Your task to perform on an android device: What is the news today? Image 0: 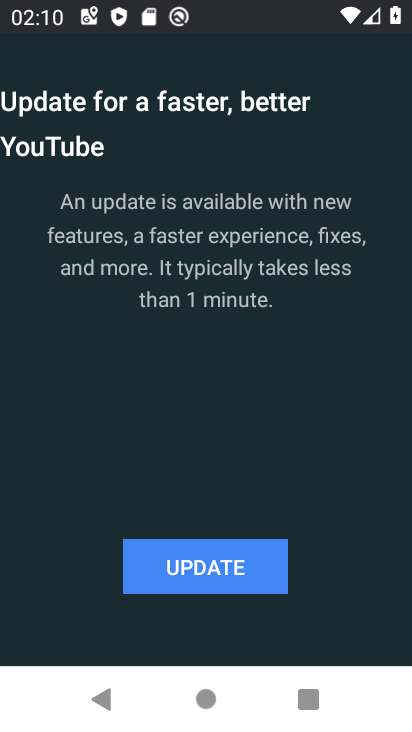
Step 0: press home button
Your task to perform on an android device: What is the news today? Image 1: 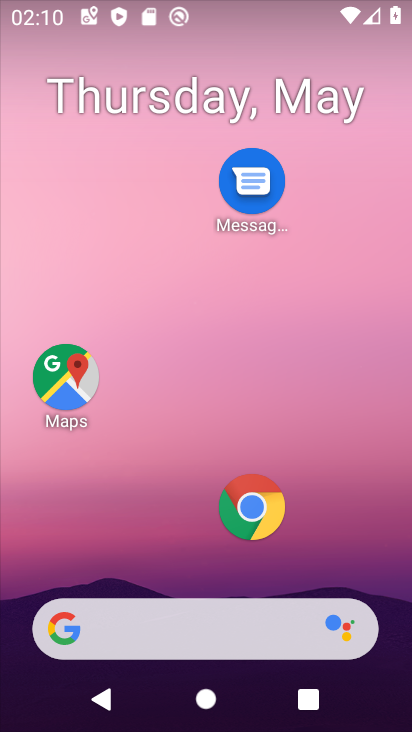
Step 1: drag from (180, 620) to (211, 54)
Your task to perform on an android device: What is the news today? Image 2: 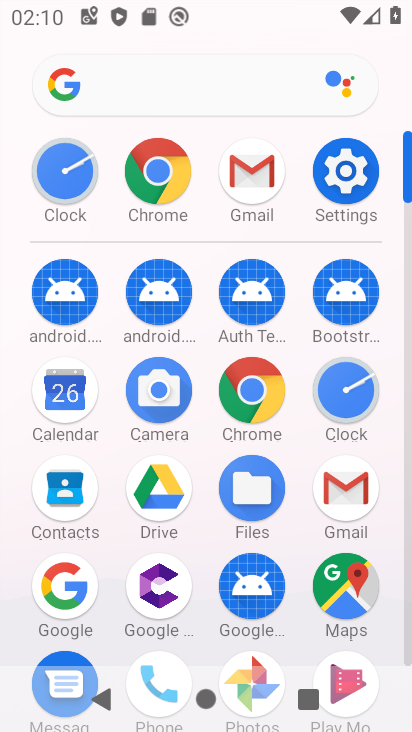
Step 2: click (250, 386)
Your task to perform on an android device: What is the news today? Image 3: 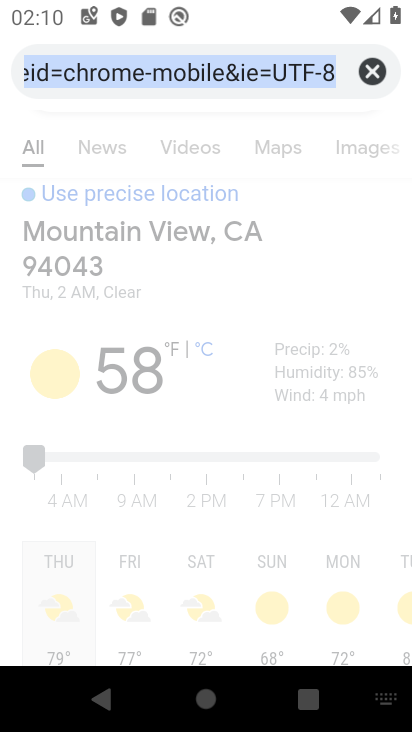
Step 3: type "news today"
Your task to perform on an android device: What is the news today? Image 4: 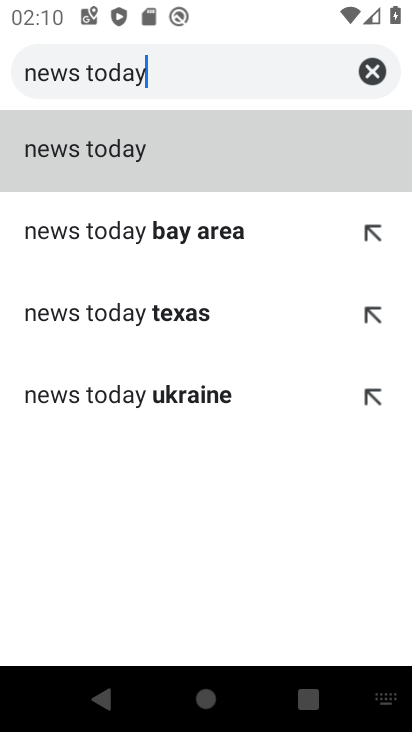
Step 4: click (103, 160)
Your task to perform on an android device: What is the news today? Image 5: 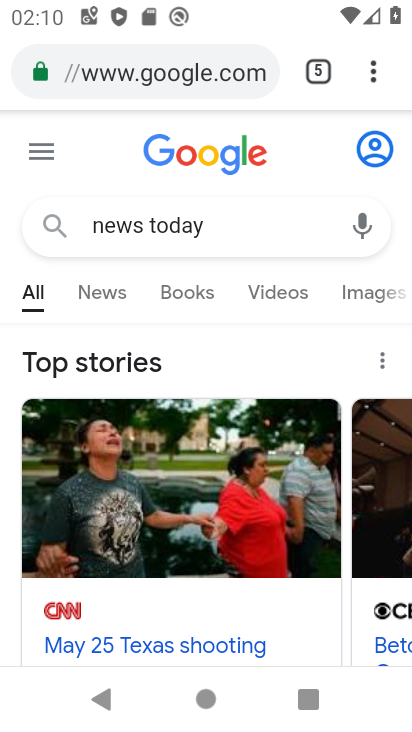
Step 5: task complete